Your task to perform on an android device: check the backup settings in the google photos Image 0: 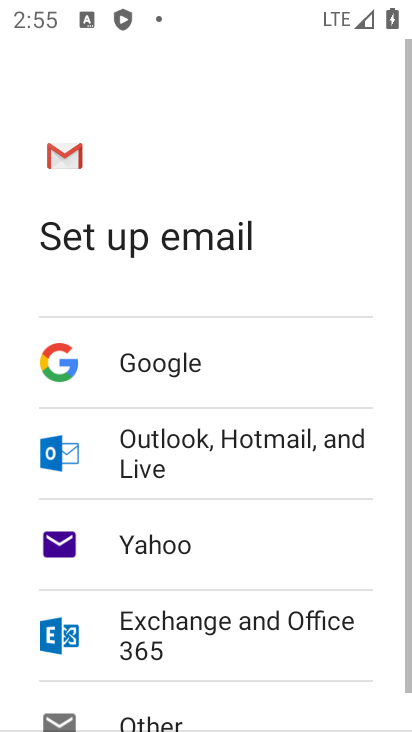
Step 0: press home button
Your task to perform on an android device: check the backup settings in the google photos Image 1: 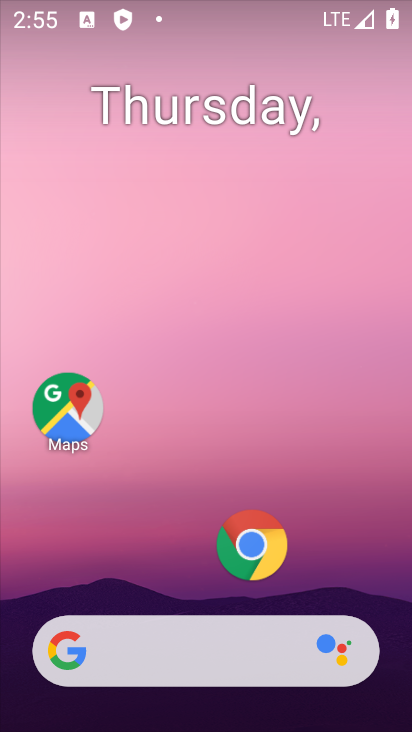
Step 1: drag from (311, 625) to (298, 63)
Your task to perform on an android device: check the backup settings in the google photos Image 2: 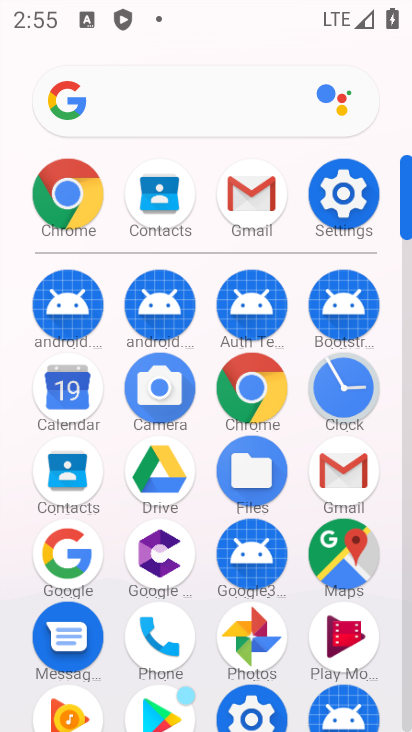
Step 2: click (267, 646)
Your task to perform on an android device: check the backup settings in the google photos Image 3: 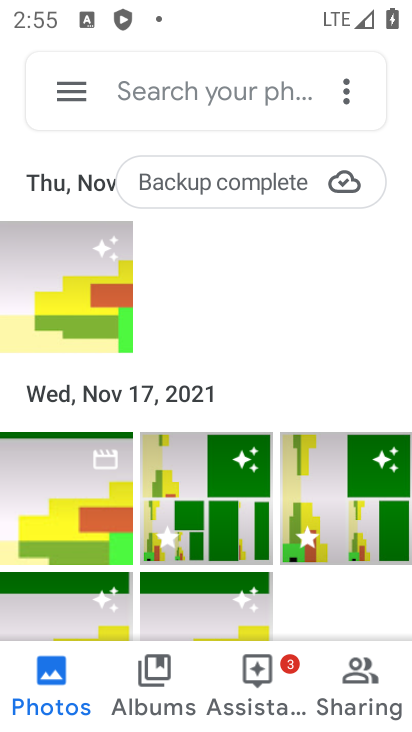
Step 3: click (67, 87)
Your task to perform on an android device: check the backup settings in the google photos Image 4: 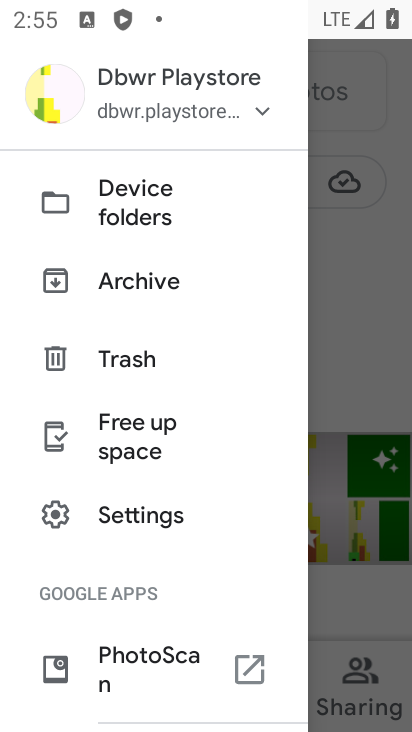
Step 4: click (184, 529)
Your task to perform on an android device: check the backup settings in the google photos Image 5: 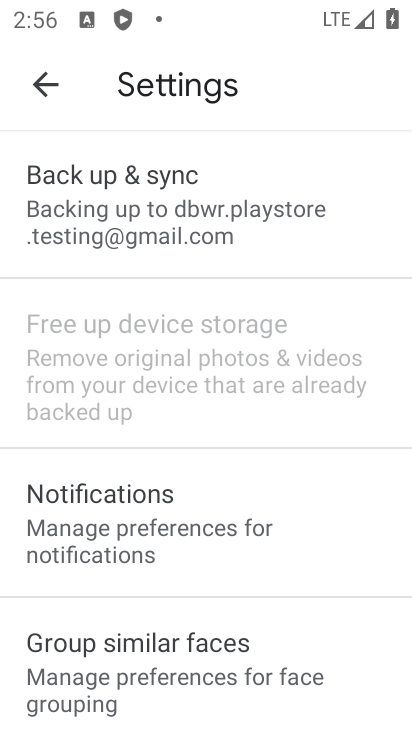
Step 5: click (242, 201)
Your task to perform on an android device: check the backup settings in the google photos Image 6: 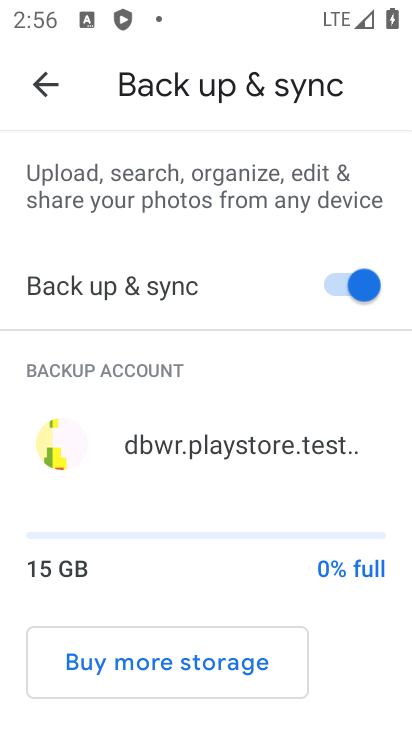
Step 6: task complete